Your task to perform on an android device: Open Google Maps Image 0: 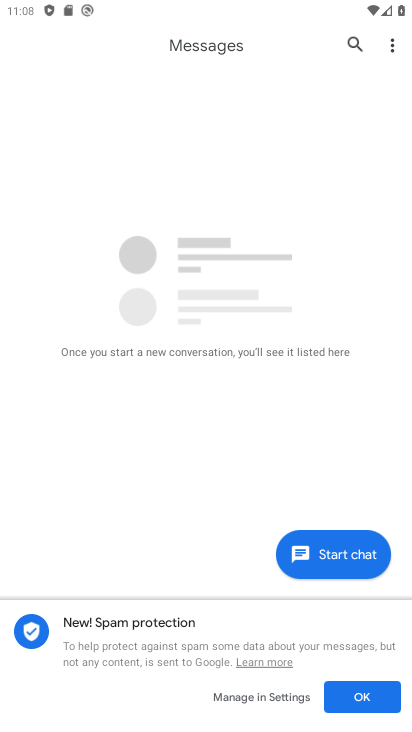
Step 0: press home button
Your task to perform on an android device: Open Google Maps Image 1: 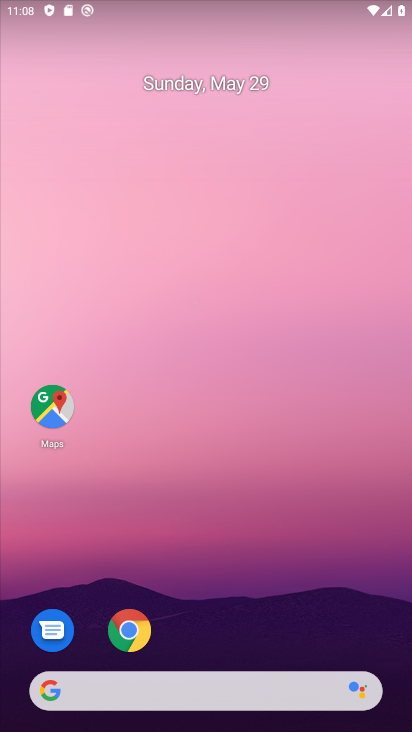
Step 1: click (54, 412)
Your task to perform on an android device: Open Google Maps Image 2: 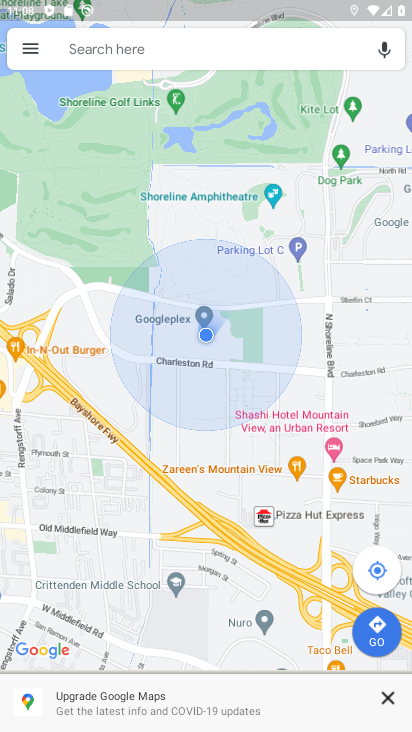
Step 2: task complete